Your task to perform on an android device: What is the news today? Image 0: 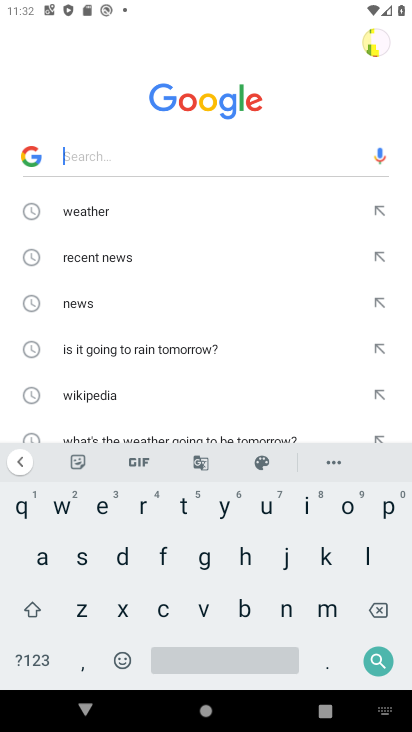
Step 0: press home button
Your task to perform on an android device: What is the news today? Image 1: 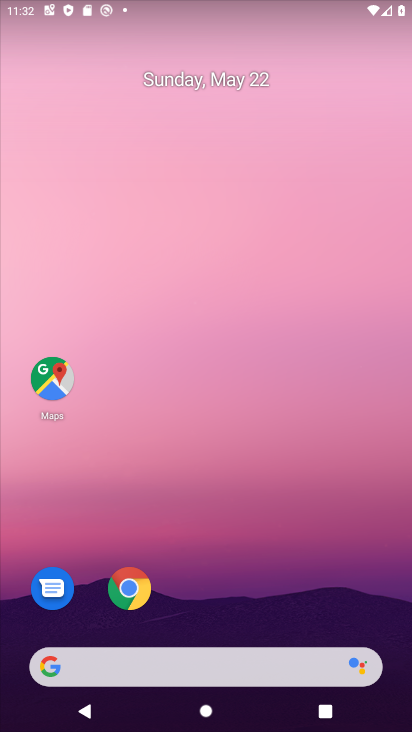
Step 1: click (199, 678)
Your task to perform on an android device: What is the news today? Image 2: 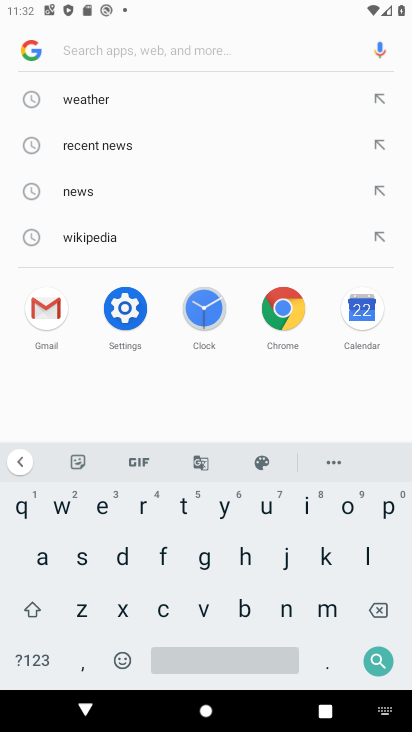
Step 2: click (106, 183)
Your task to perform on an android device: What is the news today? Image 3: 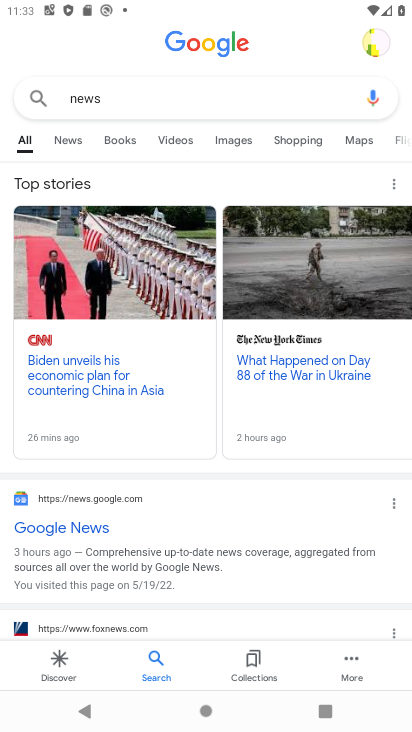
Step 3: task complete